Your task to perform on an android device: turn on data saver in the chrome app Image 0: 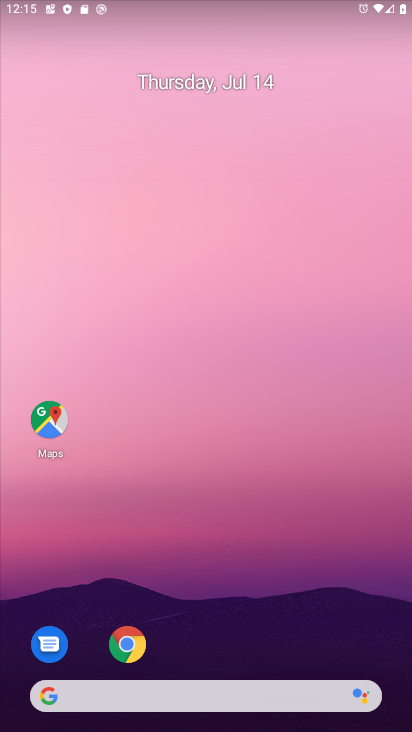
Step 0: click (115, 649)
Your task to perform on an android device: turn on data saver in the chrome app Image 1: 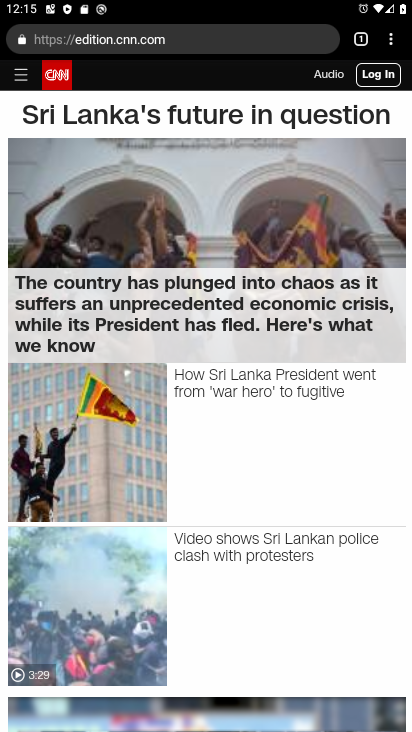
Step 1: click (394, 48)
Your task to perform on an android device: turn on data saver in the chrome app Image 2: 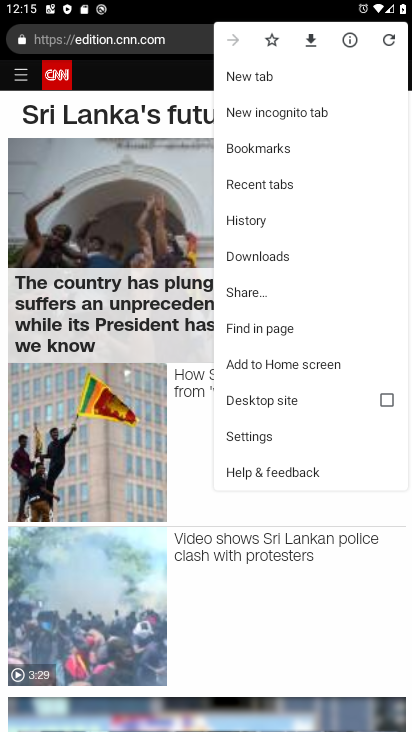
Step 2: click (242, 433)
Your task to perform on an android device: turn on data saver in the chrome app Image 3: 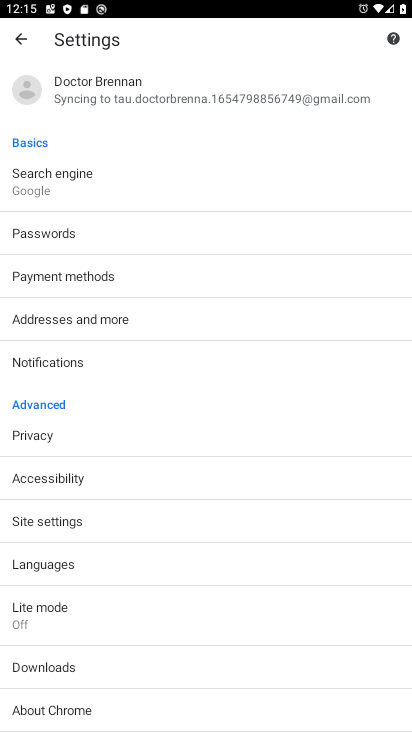
Step 3: click (40, 610)
Your task to perform on an android device: turn on data saver in the chrome app Image 4: 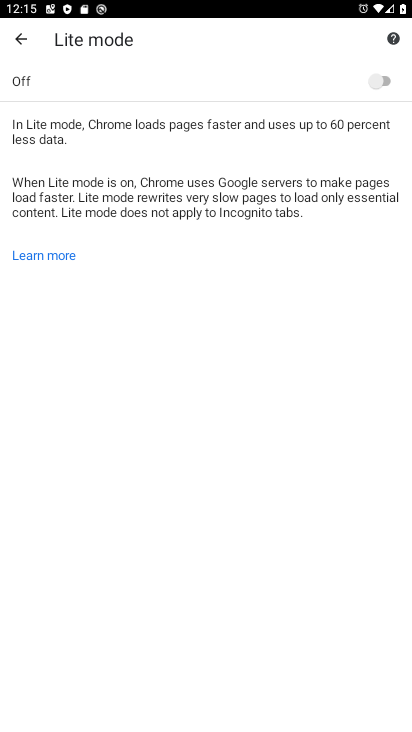
Step 4: click (391, 86)
Your task to perform on an android device: turn on data saver in the chrome app Image 5: 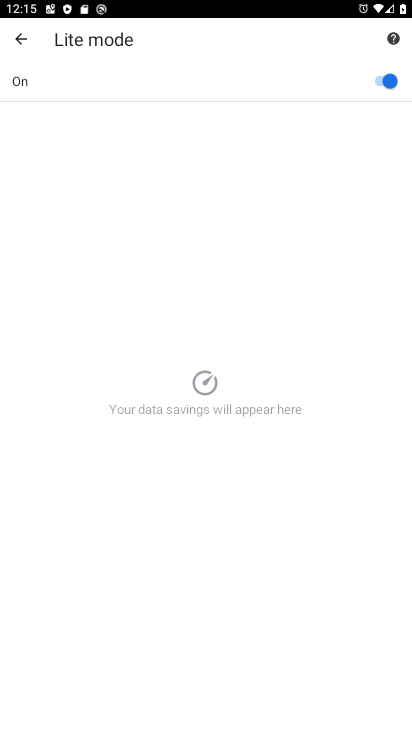
Step 5: task complete